Your task to perform on an android device: Play the last video I watched on Youtube Image 0: 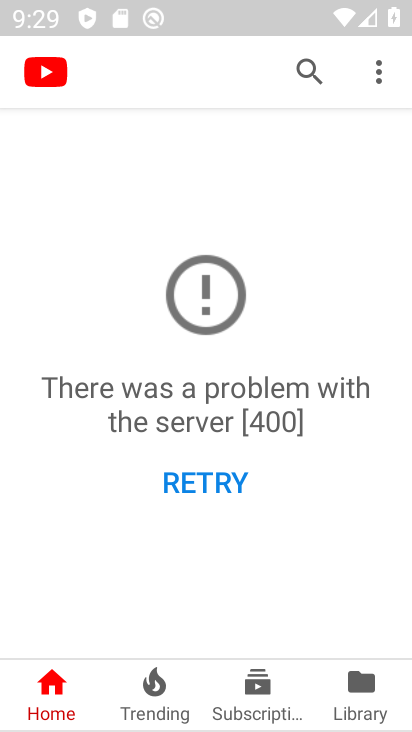
Step 0: click (378, 687)
Your task to perform on an android device: Play the last video I watched on Youtube Image 1: 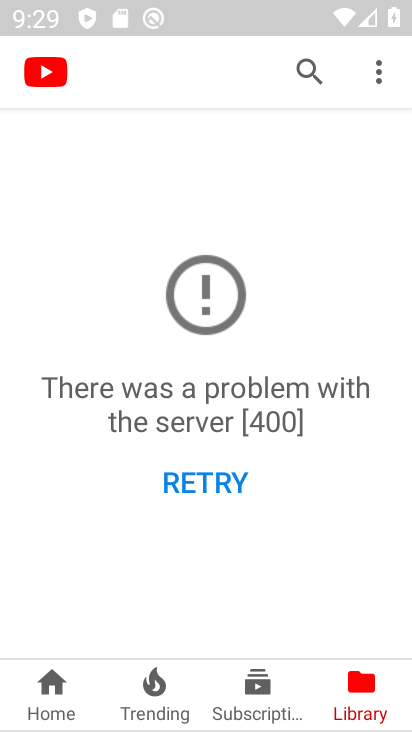
Step 1: task complete